Your task to perform on an android device: check android version Image 0: 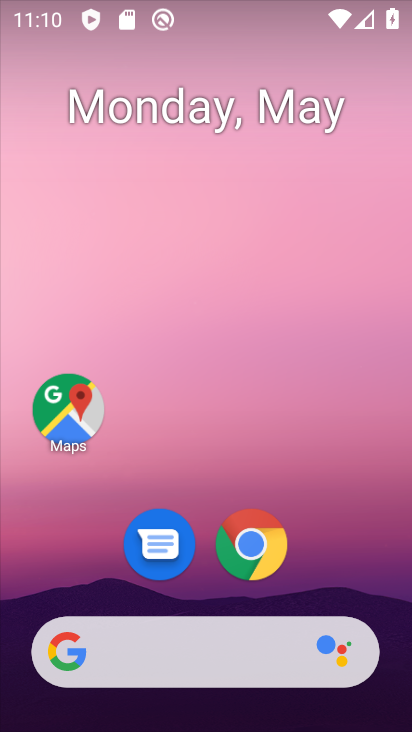
Step 0: drag from (335, 528) to (332, 98)
Your task to perform on an android device: check android version Image 1: 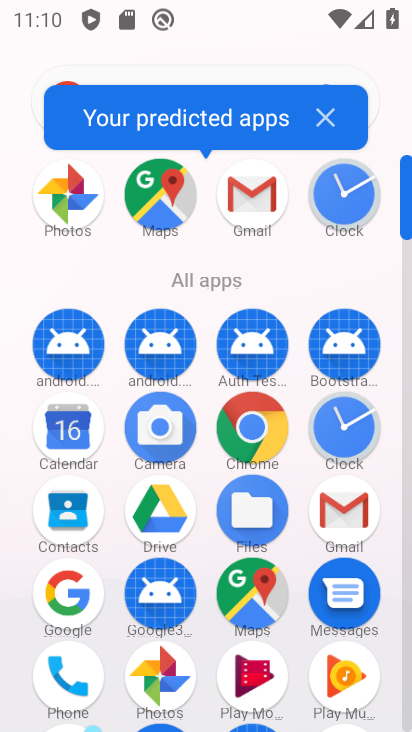
Step 1: drag from (271, 631) to (280, 226)
Your task to perform on an android device: check android version Image 2: 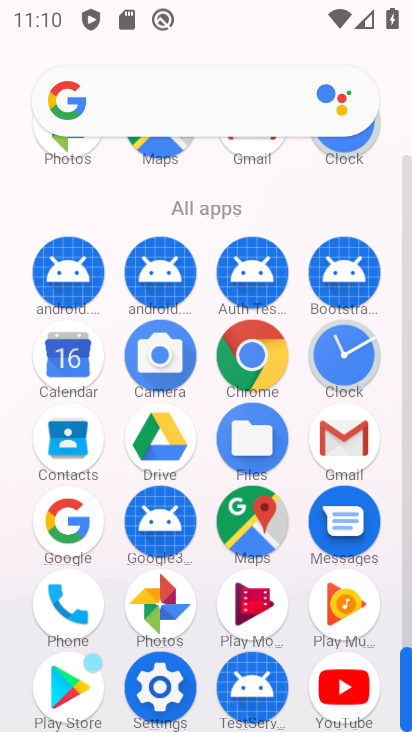
Step 2: drag from (306, 672) to (297, 355)
Your task to perform on an android device: check android version Image 3: 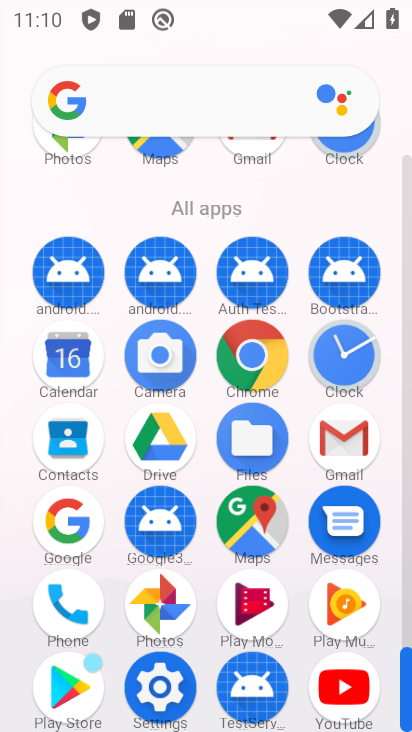
Step 3: click (152, 696)
Your task to perform on an android device: check android version Image 4: 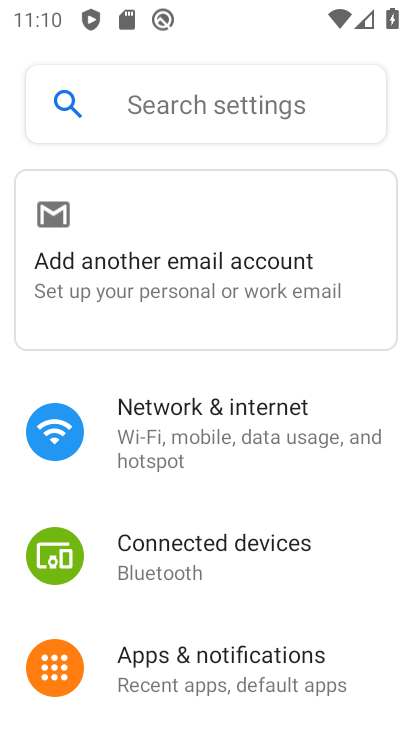
Step 4: drag from (285, 664) to (300, 383)
Your task to perform on an android device: check android version Image 5: 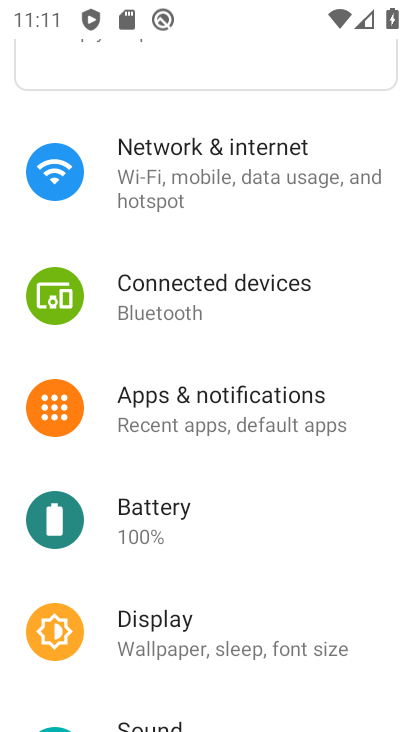
Step 5: drag from (297, 672) to (318, 320)
Your task to perform on an android device: check android version Image 6: 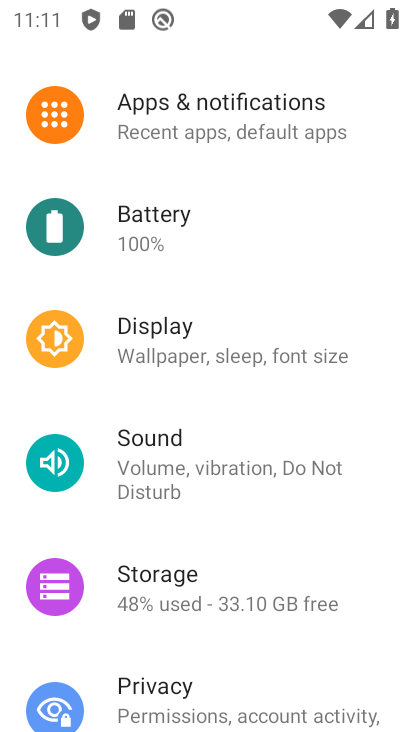
Step 6: drag from (223, 693) to (248, 278)
Your task to perform on an android device: check android version Image 7: 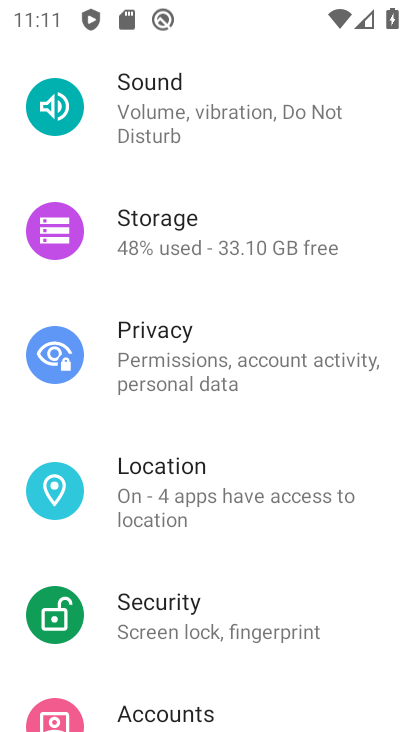
Step 7: drag from (242, 621) to (290, 249)
Your task to perform on an android device: check android version Image 8: 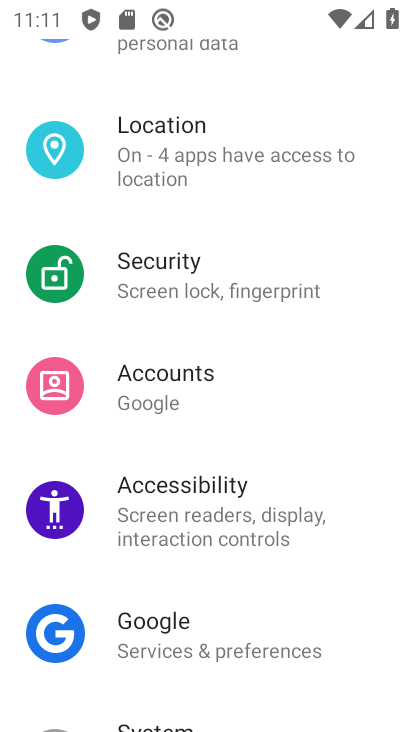
Step 8: drag from (254, 250) to (289, 576)
Your task to perform on an android device: check android version Image 9: 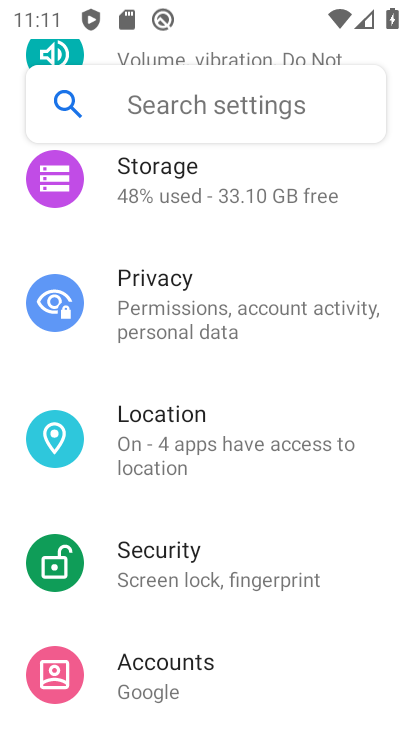
Step 9: drag from (279, 632) to (284, 332)
Your task to perform on an android device: check android version Image 10: 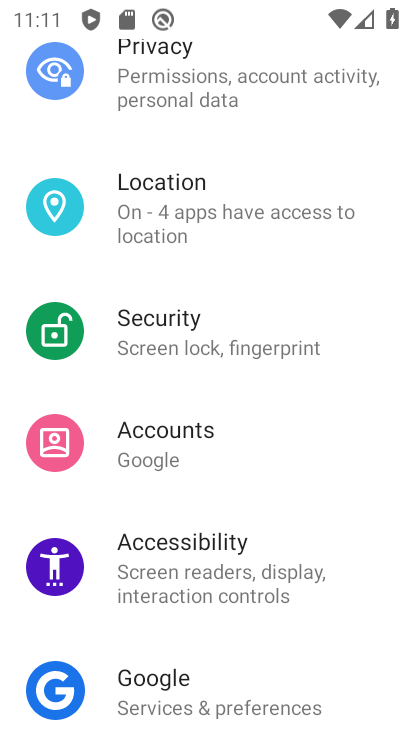
Step 10: drag from (287, 648) to (285, 235)
Your task to perform on an android device: check android version Image 11: 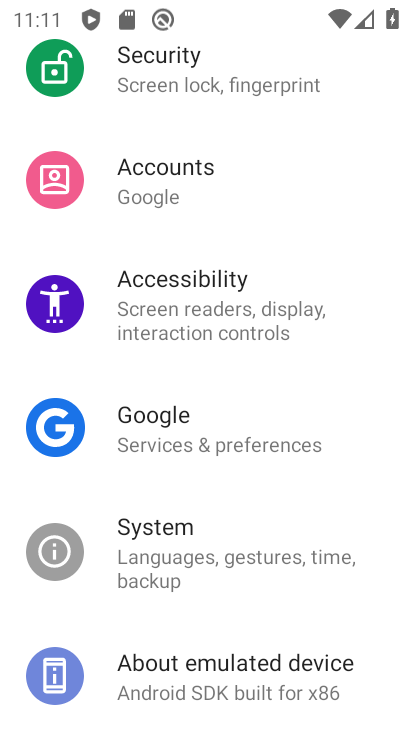
Step 11: click (223, 661)
Your task to perform on an android device: check android version Image 12: 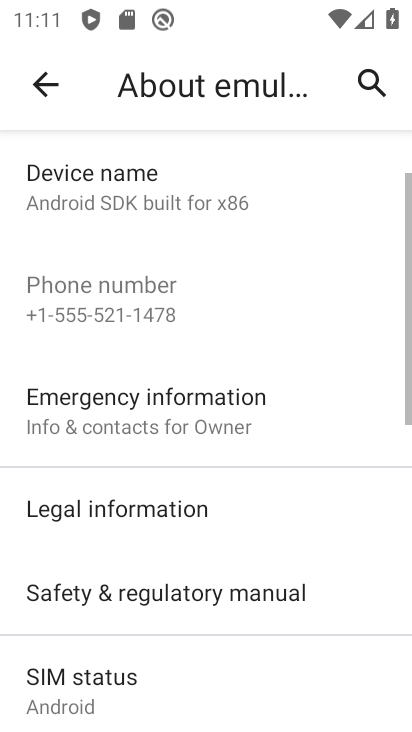
Step 12: drag from (269, 662) to (296, 323)
Your task to perform on an android device: check android version Image 13: 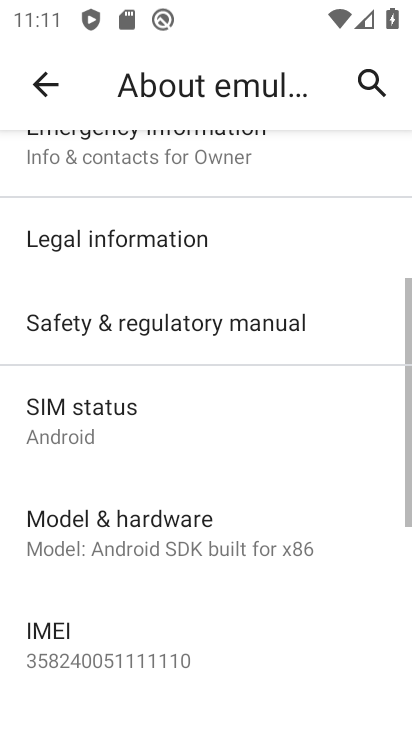
Step 13: drag from (239, 635) to (318, 283)
Your task to perform on an android device: check android version Image 14: 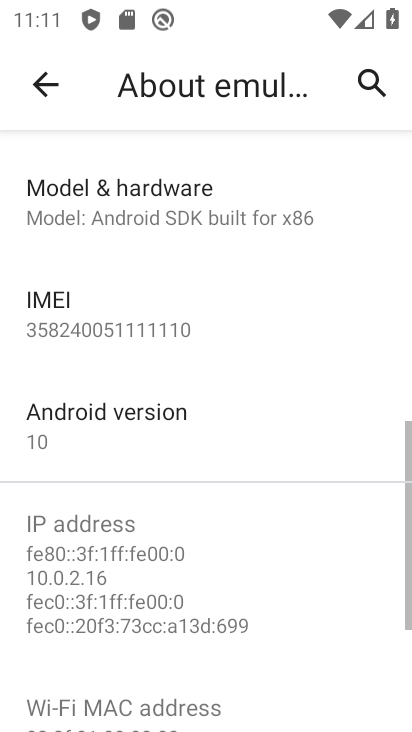
Step 14: click (117, 421)
Your task to perform on an android device: check android version Image 15: 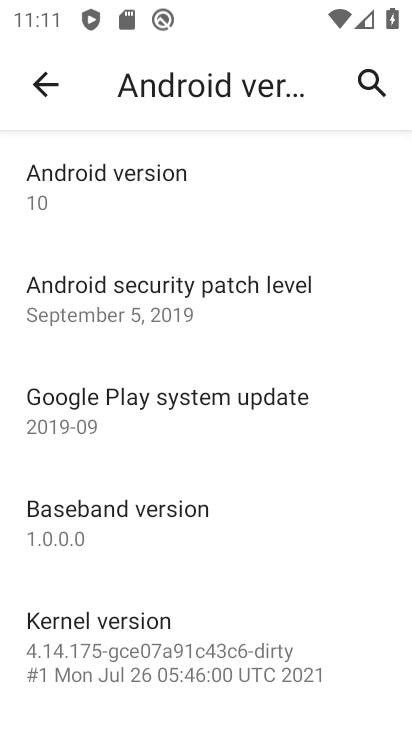
Step 15: task complete